Your task to perform on an android device: Open Yahoo.com Image 0: 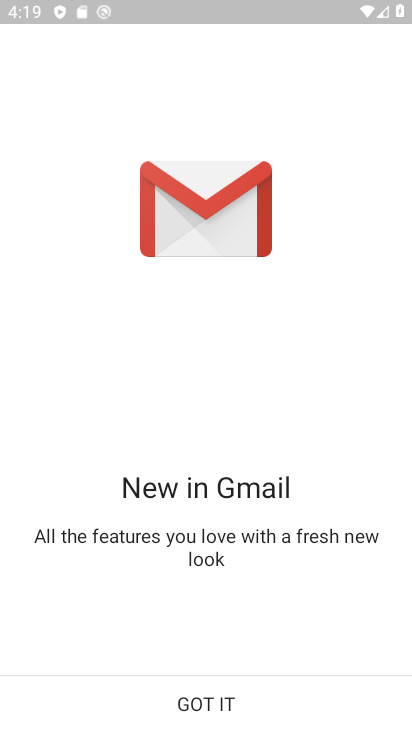
Step 0: press home button
Your task to perform on an android device: Open Yahoo.com Image 1: 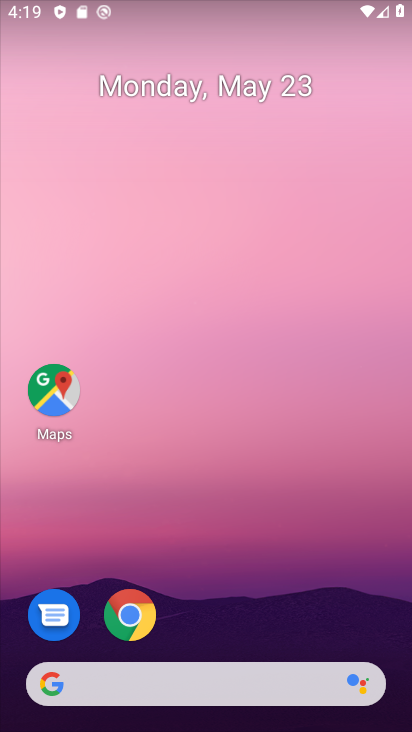
Step 1: click (147, 617)
Your task to perform on an android device: Open Yahoo.com Image 2: 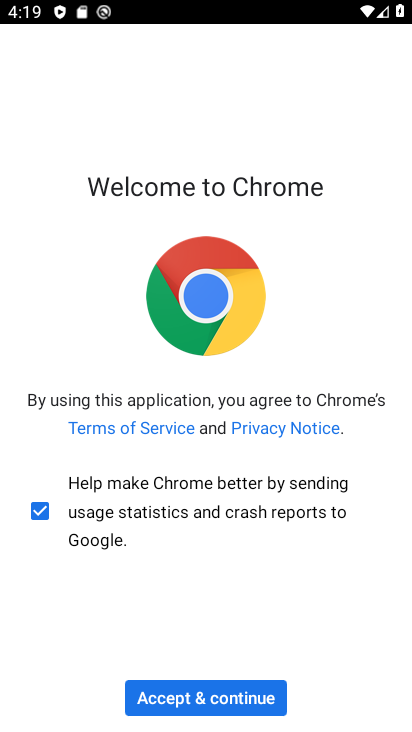
Step 2: click (175, 696)
Your task to perform on an android device: Open Yahoo.com Image 3: 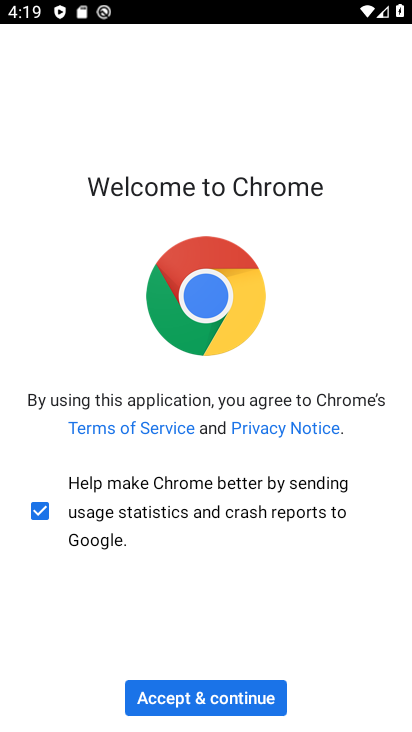
Step 3: click (175, 696)
Your task to perform on an android device: Open Yahoo.com Image 4: 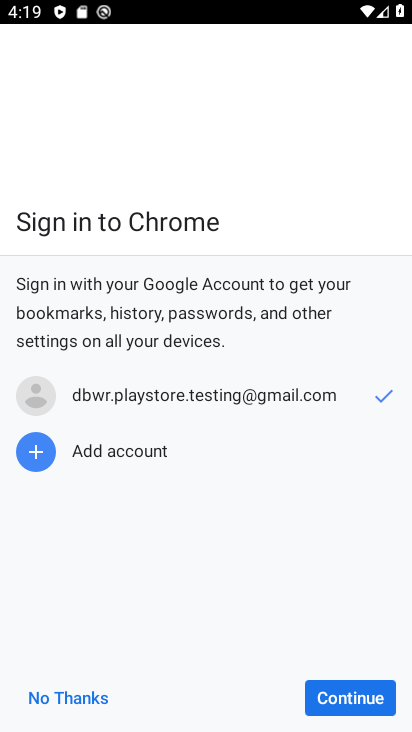
Step 4: click (175, 696)
Your task to perform on an android device: Open Yahoo.com Image 5: 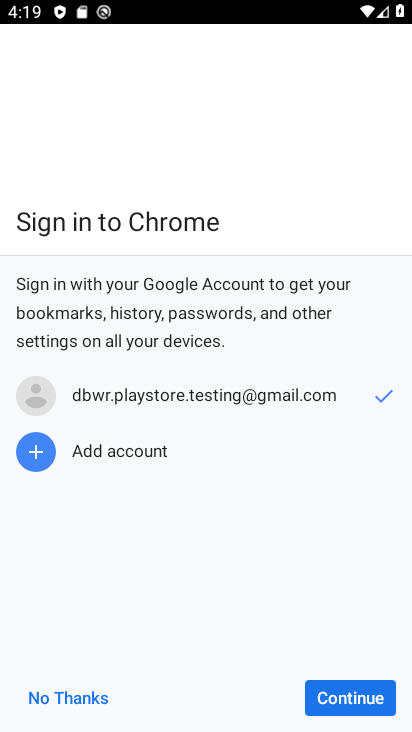
Step 5: click (340, 696)
Your task to perform on an android device: Open Yahoo.com Image 6: 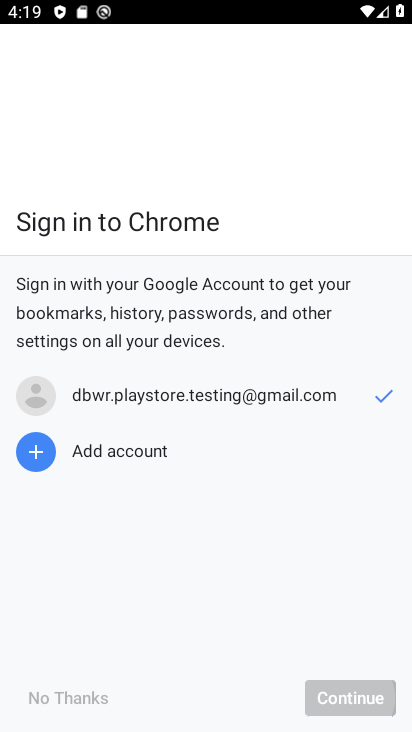
Step 6: click (340, 696)
Your task to perform on an android device: Open Yahoo.com Image 7: 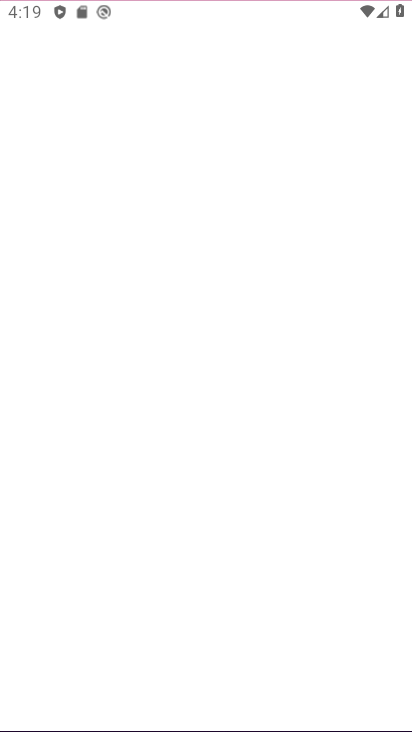
Step 7: click (340, 696)
Your task to perform on an android device: Open Yahoo.com Image 8: 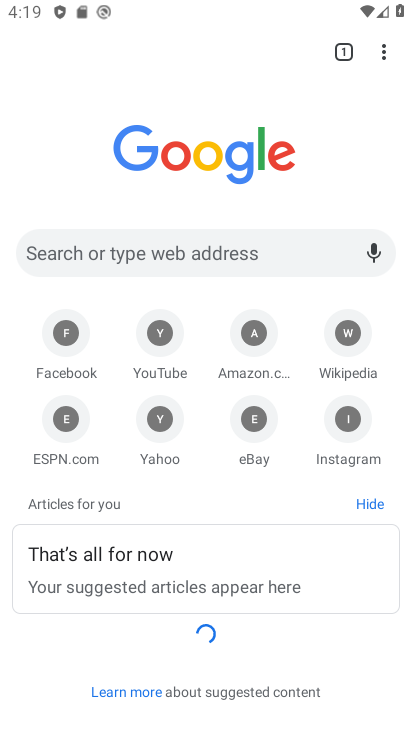
Step 8: click (209, 250)
Your task to perform on an android device: Open Yahoo.com Image 9: 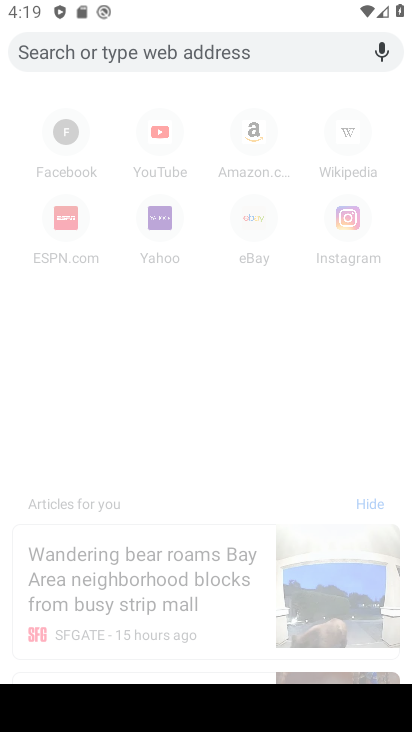
Step 9: type " Yahoo.com"
Your task to perform on an android device: Open Yahoo.com Image 10: 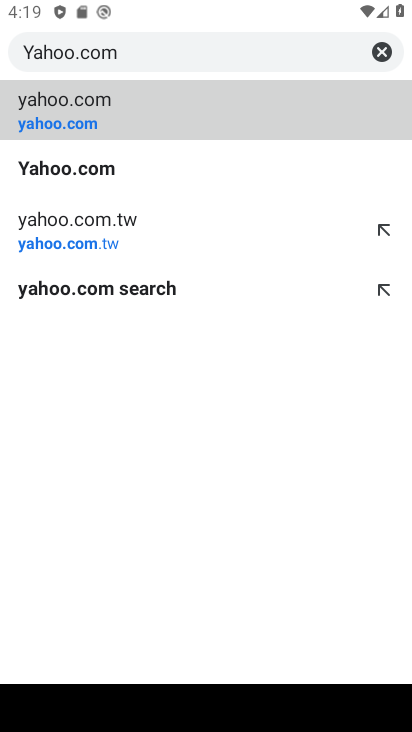
Step 10: click (69, 114)
Your task to perform on an android device: Open Yahoo.com Image 11: 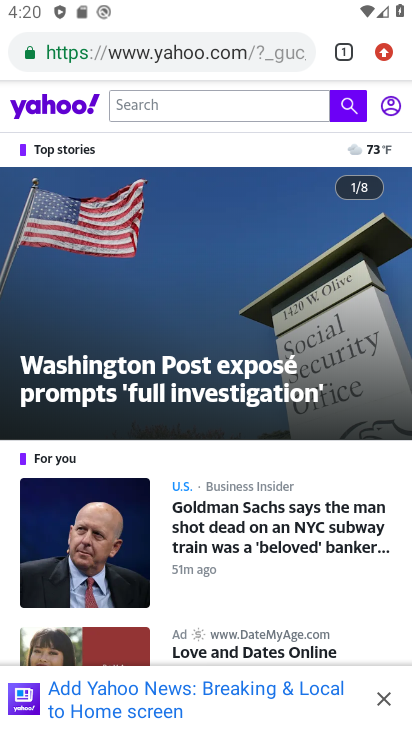
Step 11: task complete